Your task to perform on an android device: Show me popular videos on Youtube Image 0: 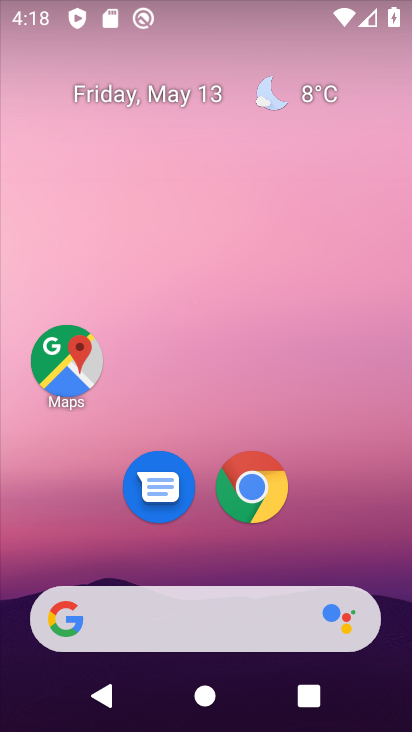
Step 0: drag from (357, 557) to (323, 66)
Your task to perform on an android device: Show me popular videos on Youtube Image 1: 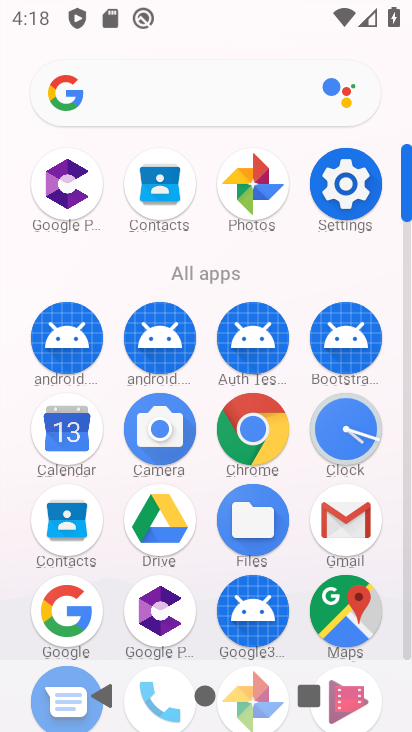
Step 1: click (409, 635)
Your task to perform on an android device: Show me popular videos on Youtube Image 2: 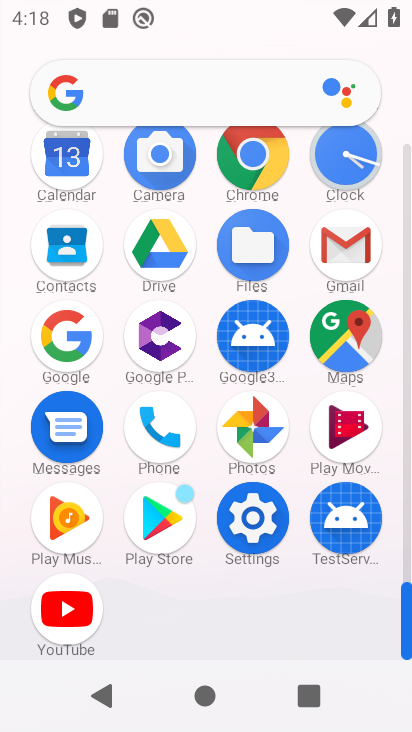
Step 2: click (90, 639)
Your task to perform on an android device: Show me popular videos on Youtube Image 3: 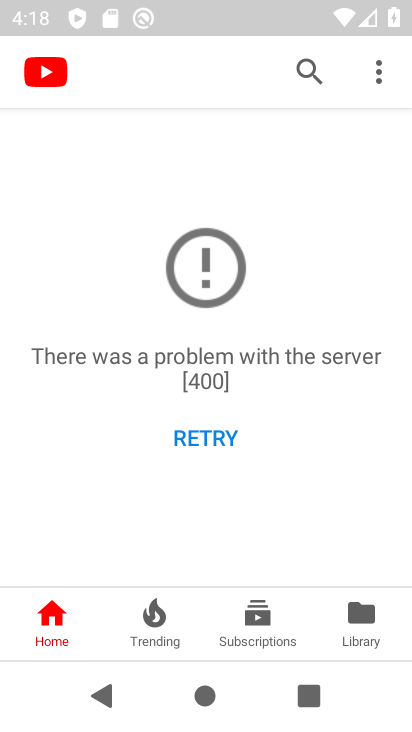
Step 3: click (212, 443)
Your task to perform on an android device: Show me popular videos on Youtube Image 4: 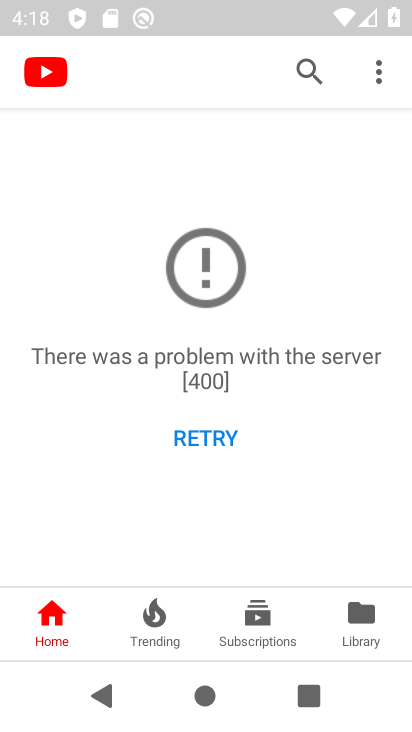
Step 4: task complete